Your task to perform on an android device: Go to internet settings Image 0: 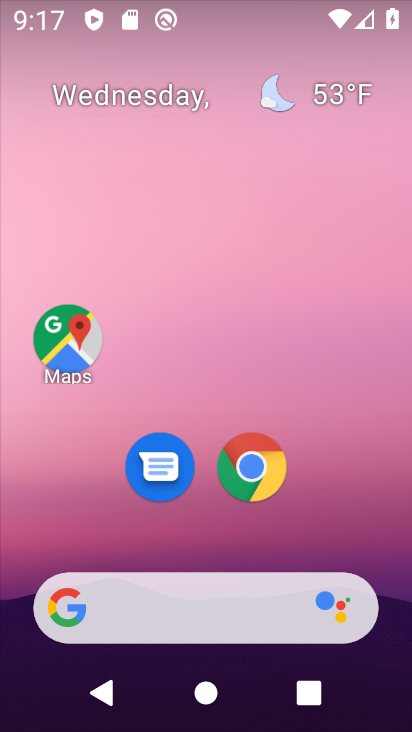
Step 0: press home button
Your task to perform on an android device: Go to internet settings Image 1: 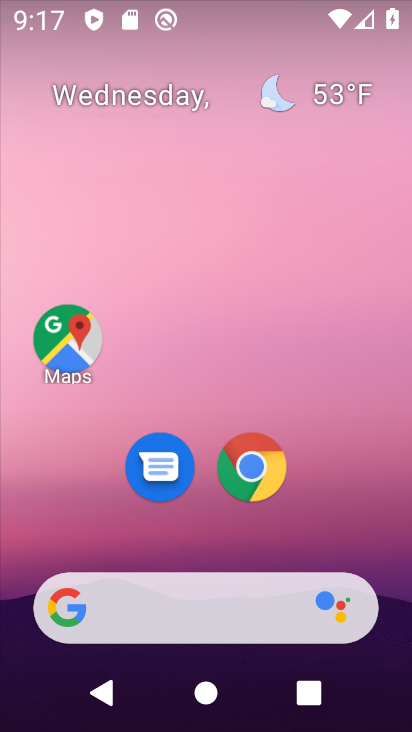
Step 1: drag from (353, 540) to (329, 0)
Your task to perform on an android device: Go to internet settings Image 2: 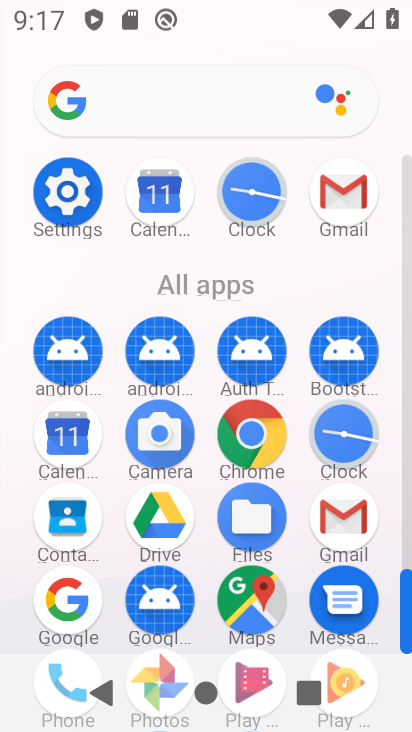
Step 2: click (73, 203)
Your task to perform on an android device: Go to internet settings Image 3: 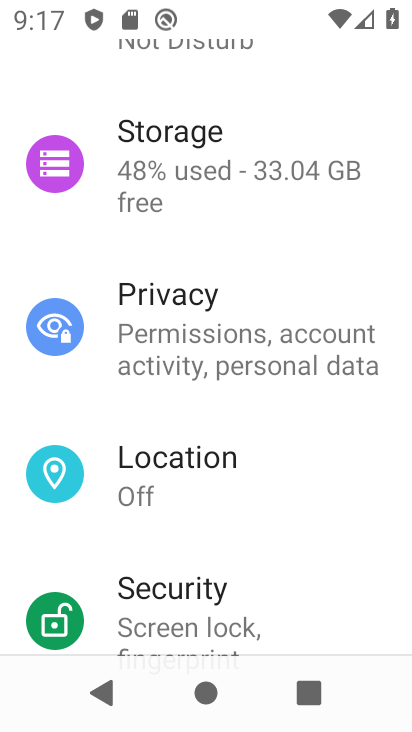
Step 3: drag from (105, 186) to (166, 677)
Your task to perform on an android device: Go to internet settings Image 4: 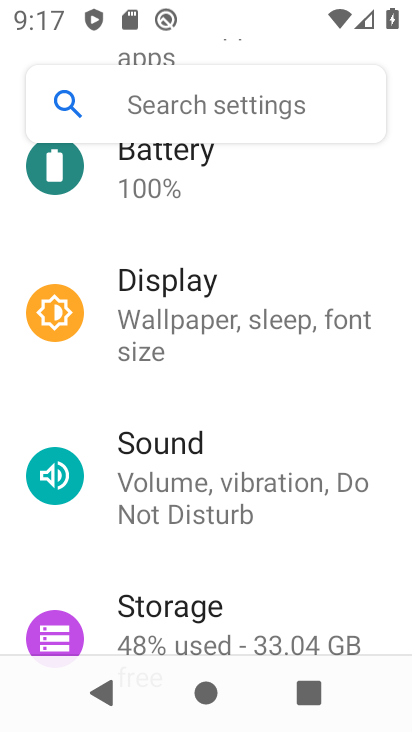
Step 4: drag from (190, 169) to (214, 555)
Your task to perform on an android device: Go to internet settings Image 5: 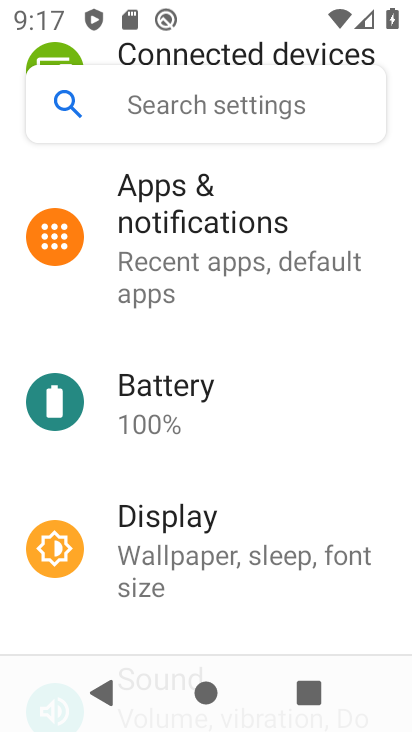
Step 5: drag from (184, 179) to (131, 725)
Your task to perform on an android device: Go to internet settings Image 6: 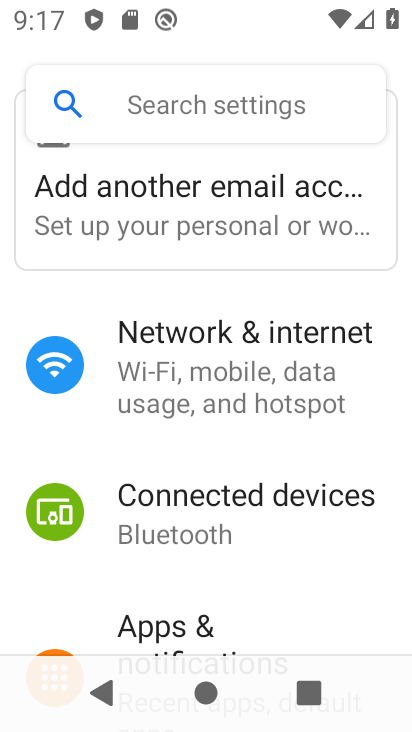
Step 6: click (232, 345)
Your task to perform on an android device: Go to internet settings Image 7: 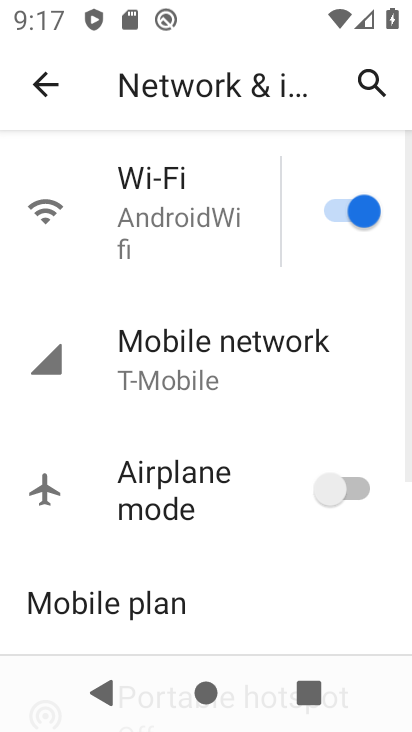
Step 7: task complete